Your task to perform on an android device: Search for pizza restaurants on Maps Image 0: 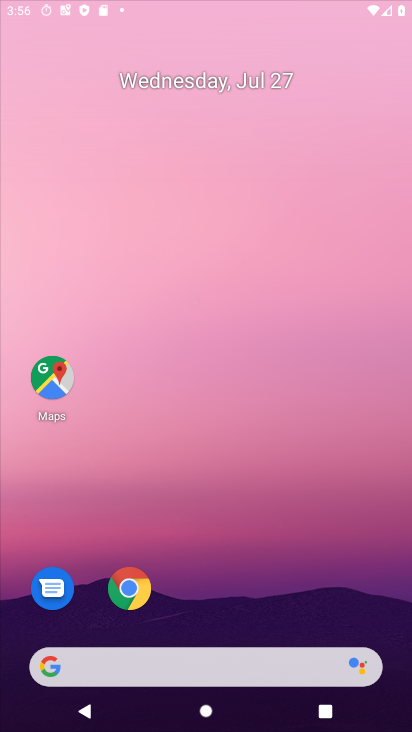
Step 0: press home button
Your task to perform on an android device: Search for pizza restaurants on Maps Image 1: 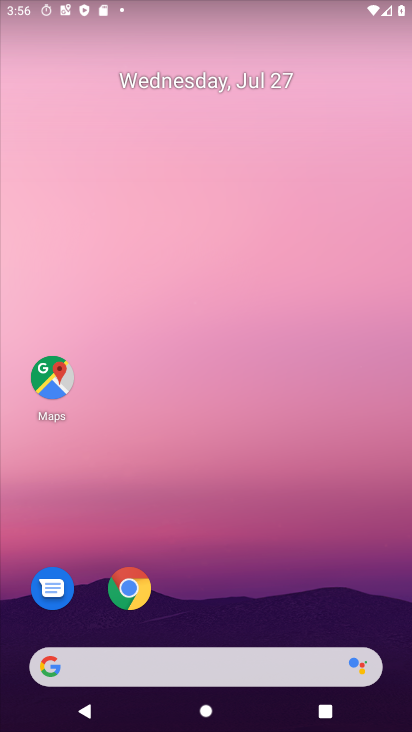
Step 1: drag from (238, 634) to (22, 24)
Your task to perform on an android device: Search for pizza restaurants on Maps Image 2: 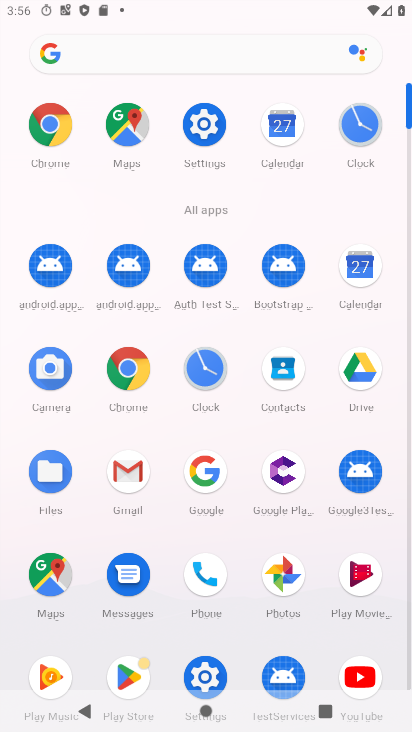
Step 2: click (123, 137)
Your task to perform on an android device: Search for pizza restaurants on Maps Image 3: 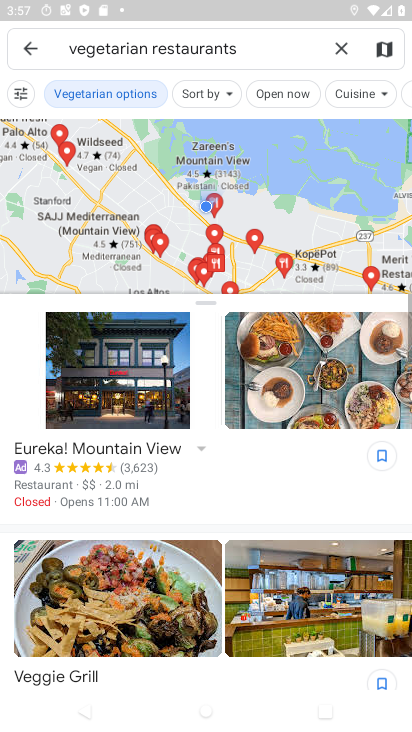
Step 3: click (29, 52)
Your task to perform on an android device: Search for pizza restaurants on Maps Image 4: 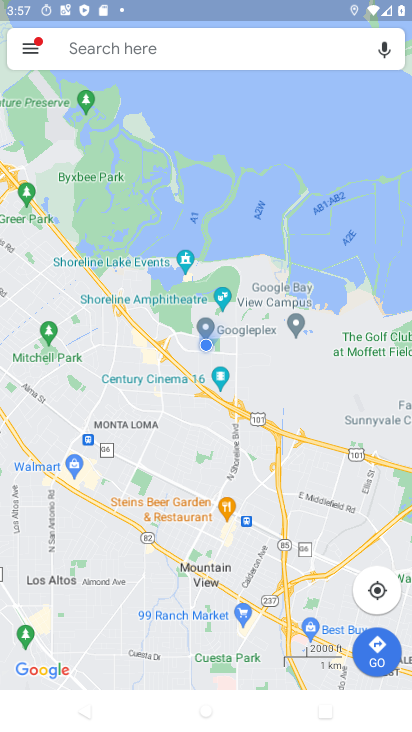
Step 4: click (124, 49)
Your task to perform on an android device: Search for pizza restaurants on Maps Image 5: 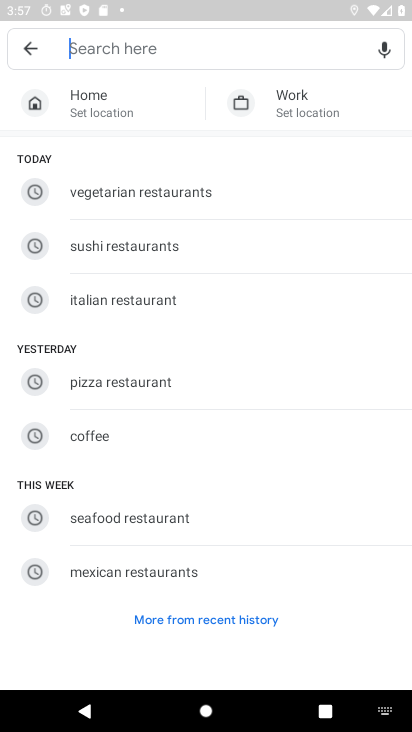
Step 5: click (120, 382)
Your task to perform on an android device: Search for pizza restaurants on Maps Image 6: 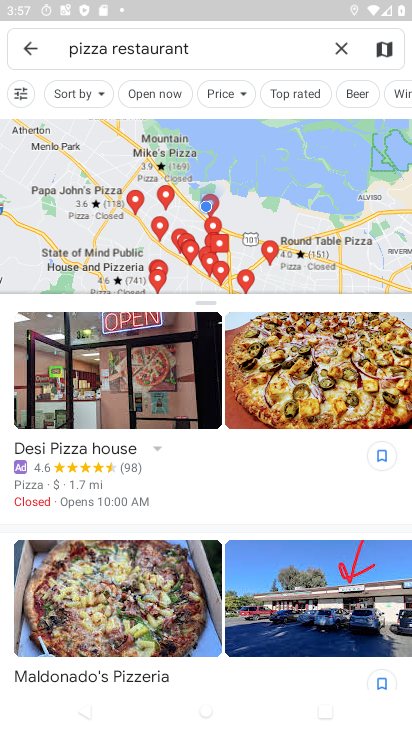
Step 6: task complete